Your task to perform on an android device: Open my contact list Image 0: 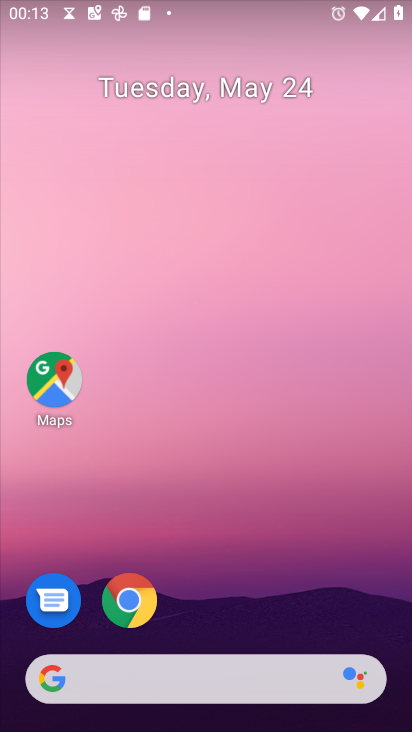
Step 0: drag from (219, 724) to (221, 89)
Your task to perform on an android device: Open my contact list Image 1: 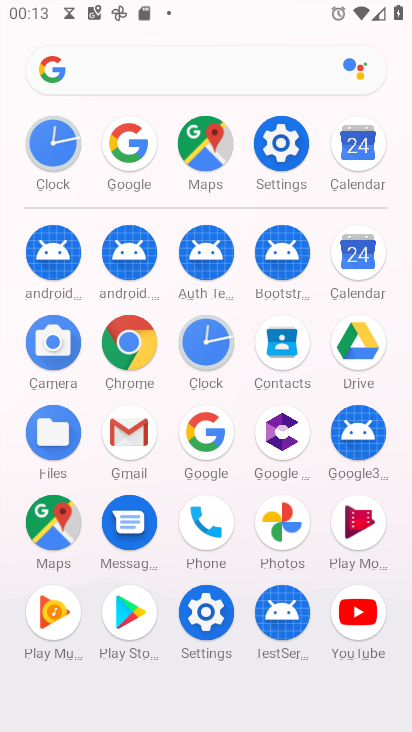
Step 1: click (283, 350)
Your task to perform on an android device: Open my contact list Image 2: 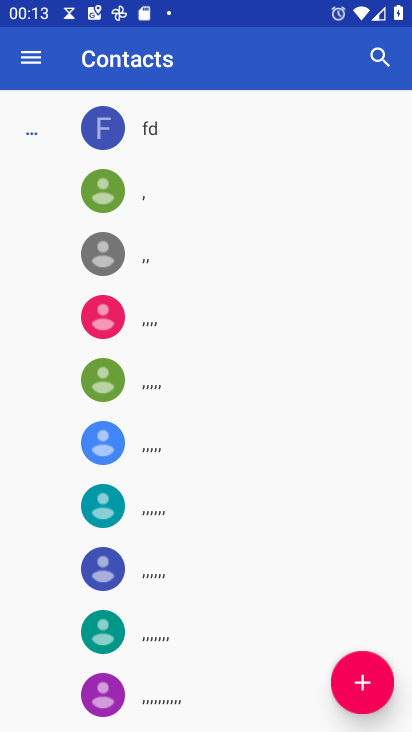
Step 2: task complete